Your task to perform on an android device: allow notifications from all sites in the chrome app Image 0: 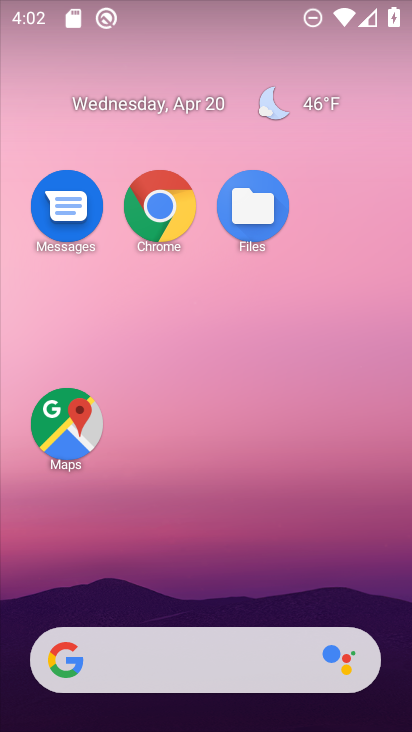
Step 0: click (175, 217)
Your task to perform on an android device: allow notifications from all sites in the chrome app Image 1: 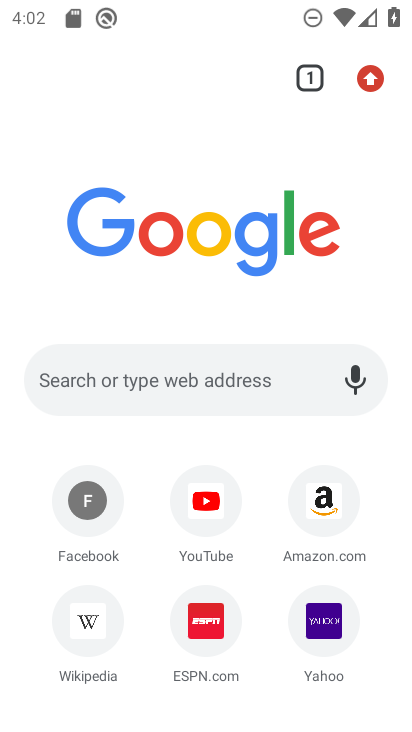
Step 1: click (374, 75)
Your task to perform on an android device: allow notifications from all sites in the chrome app Image 2: 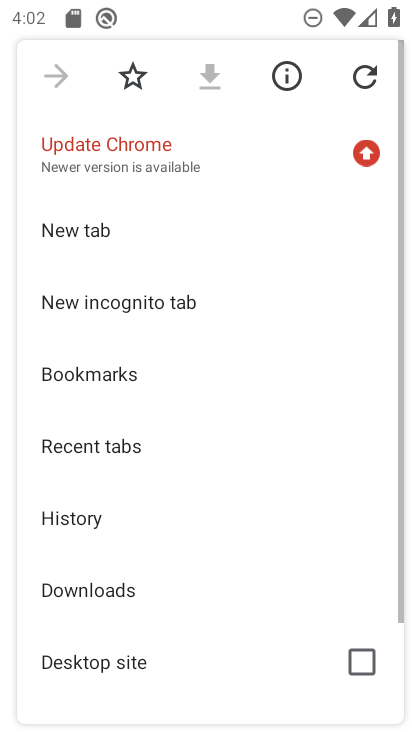
Step 2: drag from (112, 601) to (180, 173)
Your task to perform on an android device: allow notifications from all sites in the chrome app Image 3: 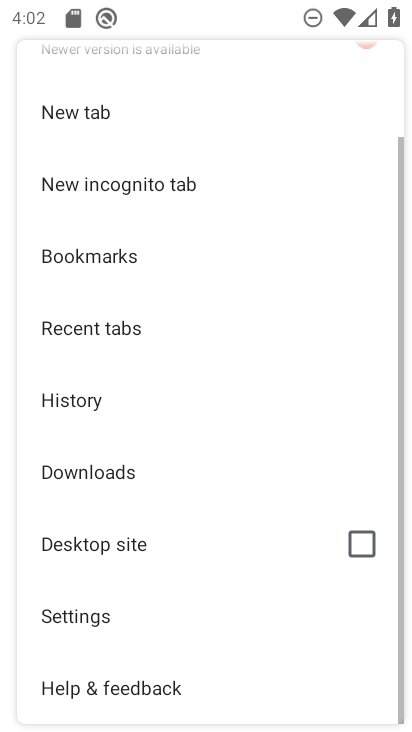
Step 3: click (99, 614)
Your task to perform on an android device: allow notifications from all sites in the chrome app Image 4: 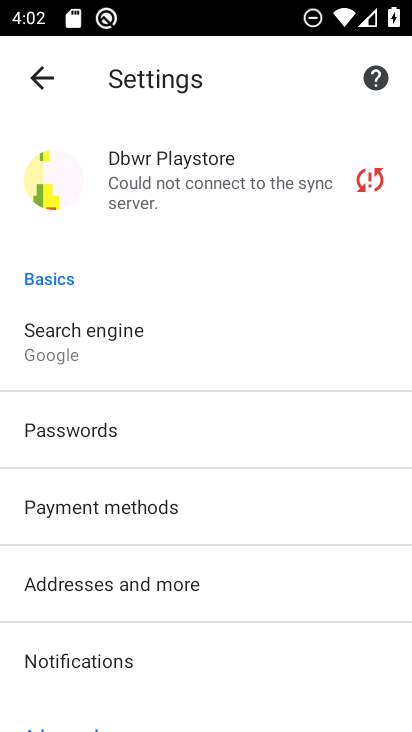
Step 4: drag from (108, 573) to (257, 79)
Your task to perform on an android device: allow notifications from all sites in the chrome app Image 5: 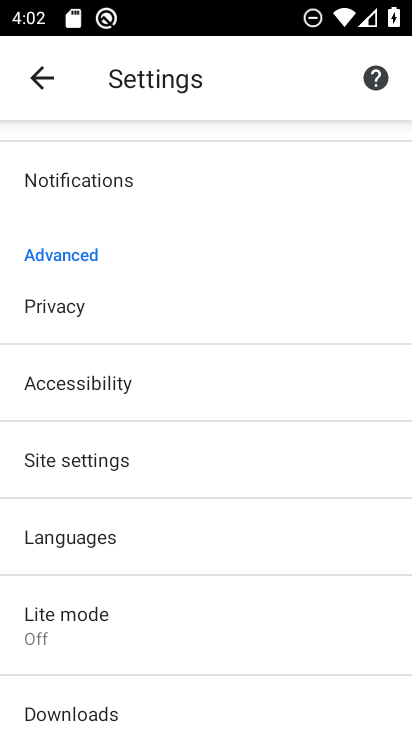
Step 5: drag from (148, 617) to (187, 388)
Your task to perform on an android device: allow notifications from all sites in the chrome app Image 6: 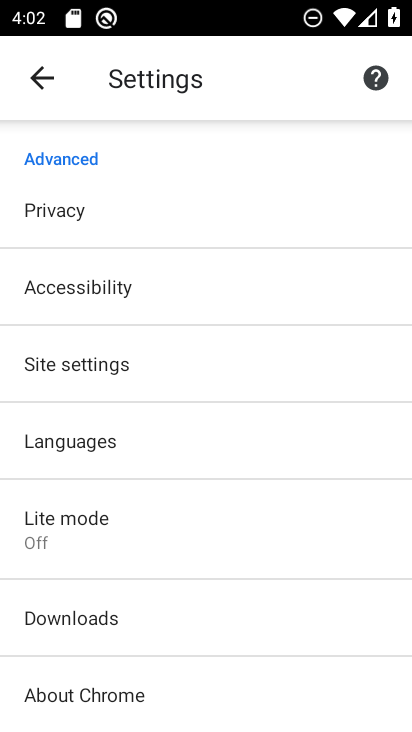
Step 6: click (59, 362)
Your task to perform on an android device: allow notifications from all sites in the chrome app Image 7: 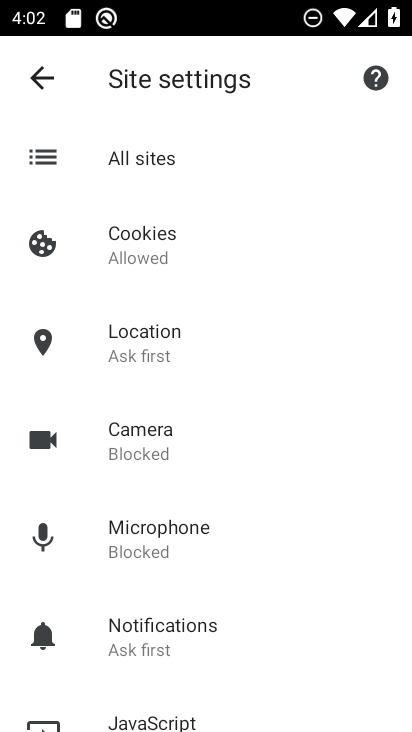
Step 7: click (122, 644)
Your task to perform on an android device: allow notifications from all sites in the chrome app Image 8: 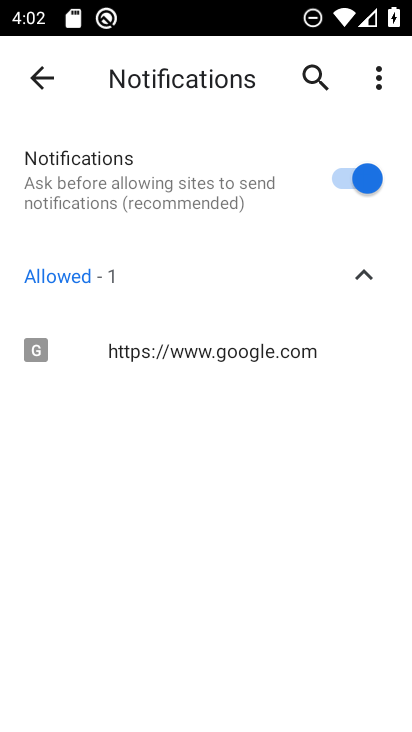
Step 8: task complete